Your task to perform on an android device: show emergency info Image 0: 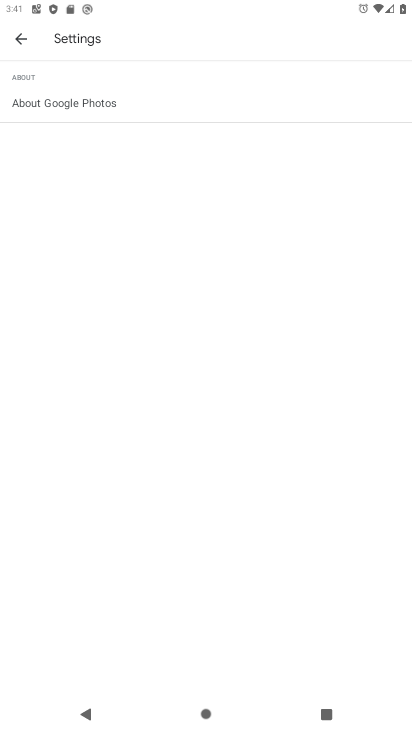
Step 0: press home button
Your task to perform on an android device: show emergency info Image 1: 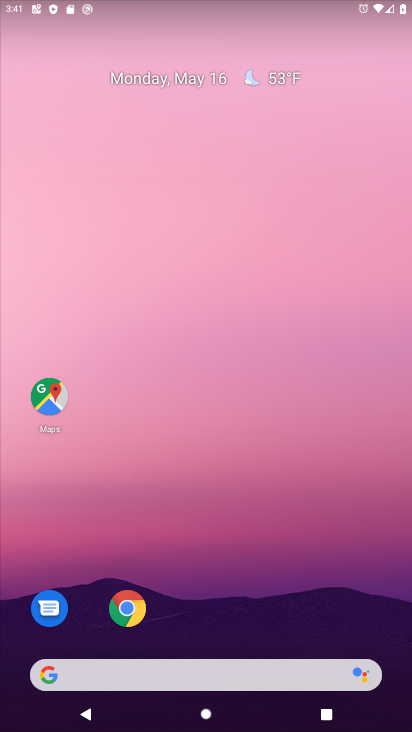
Step 1: drag from (189, 547) to (207, 80)
Your task to perform on an android device: show emergency info Image 2: 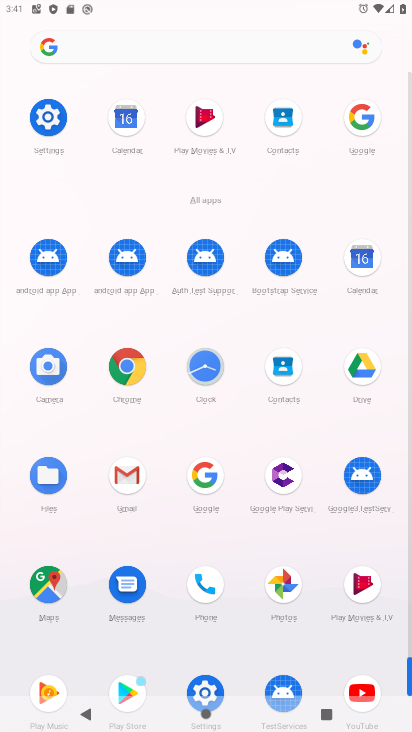
Step 2: click (47, 116)
Your task to perform on an android device: show emergency info Image 3: 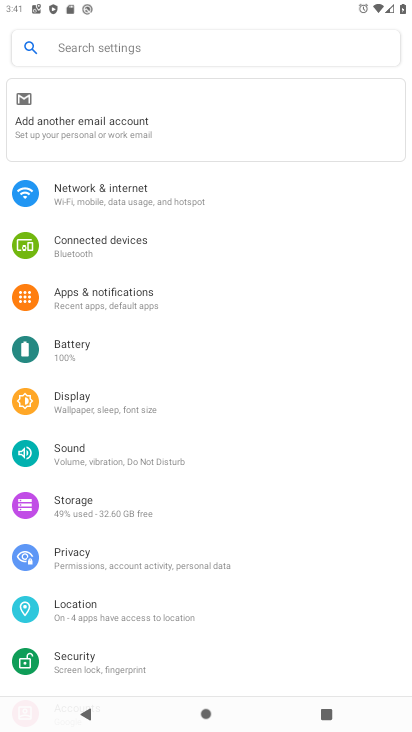
Step 3: drag from (135, 524) to (181, 425)
Your task to perform on an android device: show emergency info Image 4: 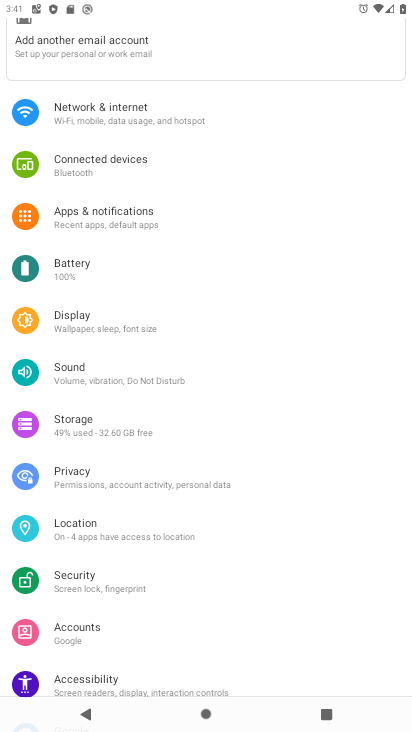
Step 4: drag from (115, 589) to (166, 476)
Your task to perform on an android device: show emergency info Image 5: 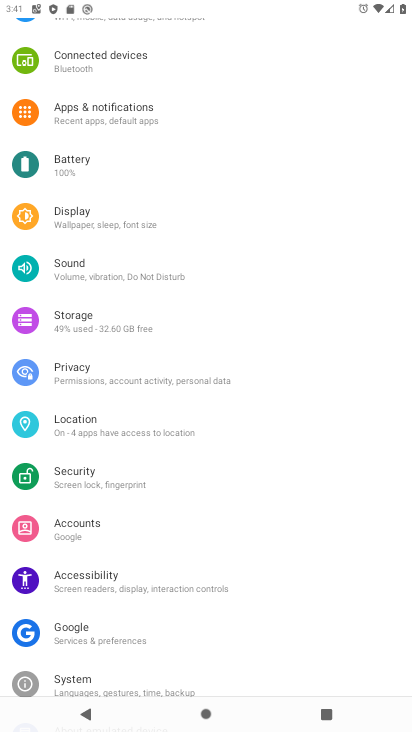
Step 5: drag from (114, 626) to (146, 528)
Your task to perform on an android device: show emergency info Image 6: 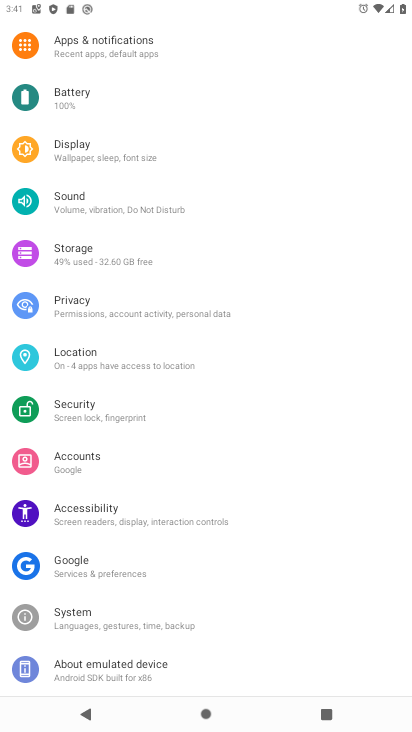
Step 6: click (97, 664)
Your task to perform on an android device: show emergency info Image 7: 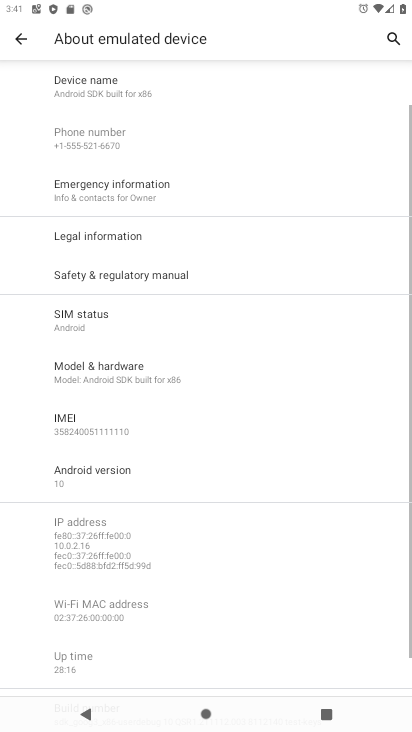
Step 7: click (97, 202)
Your task to perform on an android device: show emergency info Image 8: 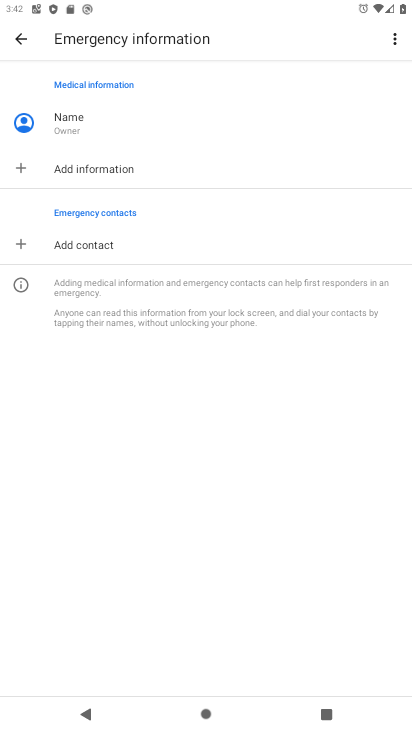
Step 8: task complete